Your task to perform on an android device: turn off picture-in-picture Image 0: 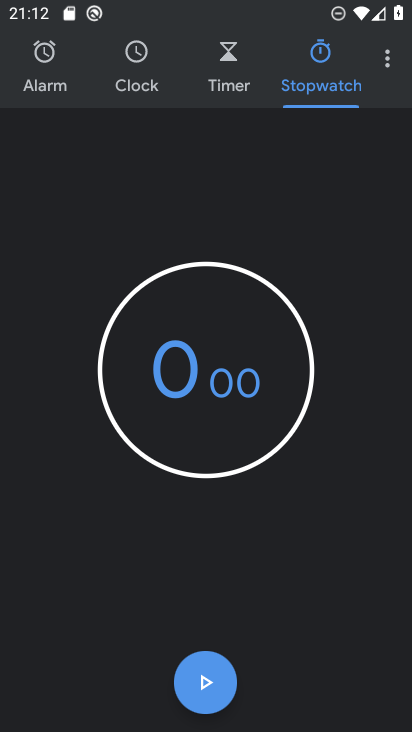
Step 0: press home button
Your task to perform on an android device: turn off picture-in-picture Image 1: 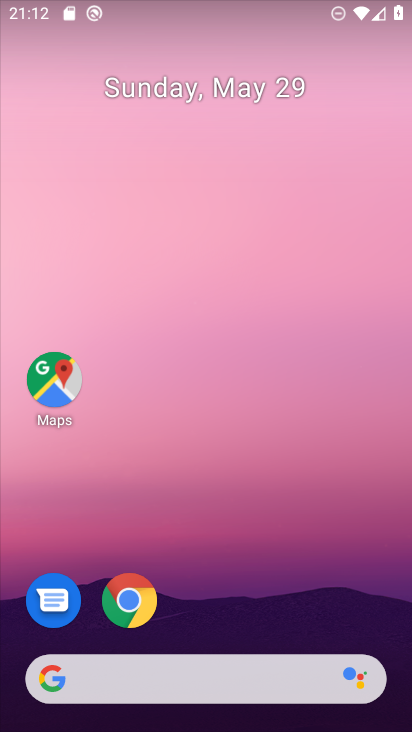
Step 1: drag from (246, 596) to (310, 131)
Your task to perform on an android device: turn off picture-in-picture Image 2: 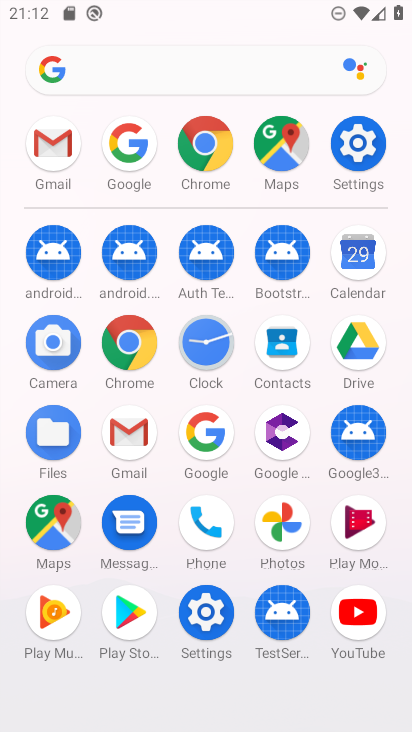
Step 2: click (350, 157)
Your task to perform on an android device: turn off picture-in-picture Image 3: 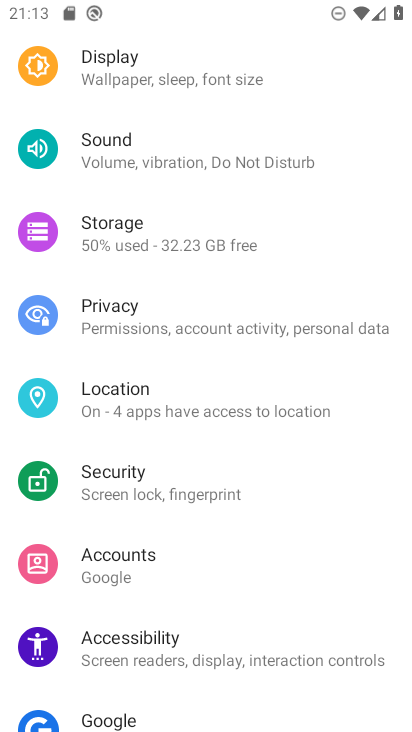
Step 3: drag from (243, 263) to (244, 523)
Your task to perform on an android device: turn off picture-in-picture Image 4: 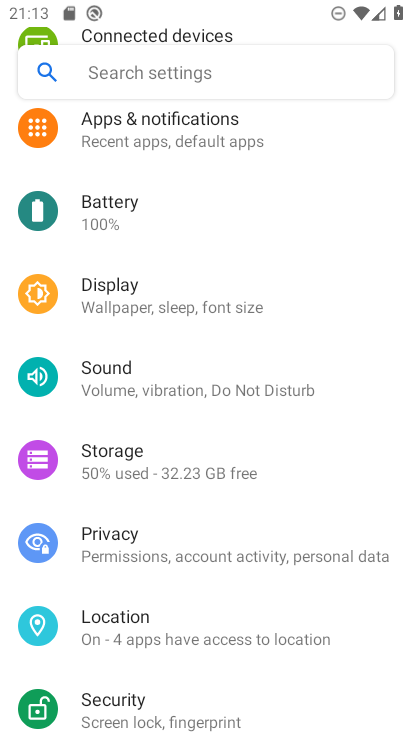
Step 4: click (204, 136)
Your task to perform on an android device: turn off picture-in-picture Image 5: 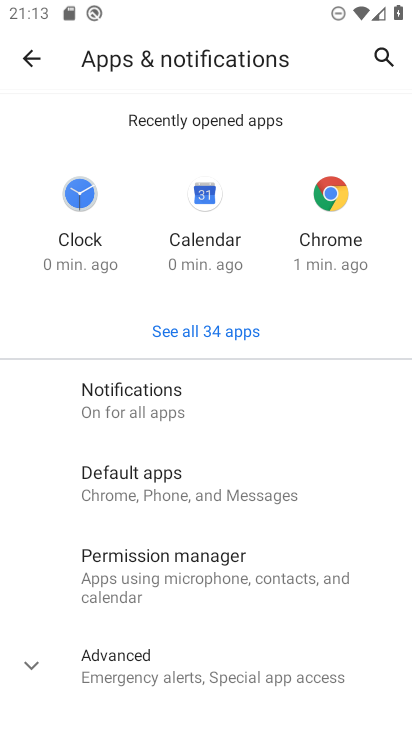
Step 5: drag from (253, 648) to (260, 306)
Your task to perform on an android device: turn off picture-in-picture Image 6: 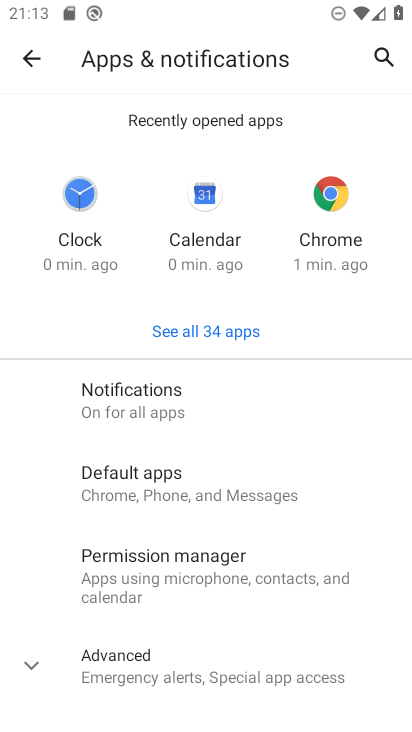
Step 6: click (158, 665)
Your task to perform on an android device: turn off picture-in-picture Image 7: 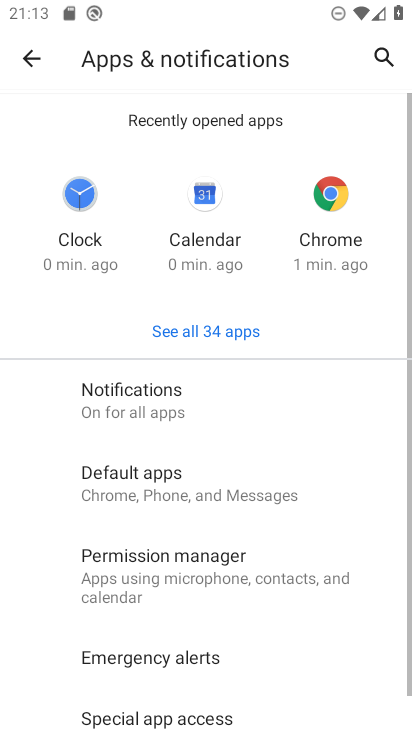
Step 7: drag from (300, 679) to (304, 259)
Your task to perform on an android device: turn off picture-in-picture Image 8: 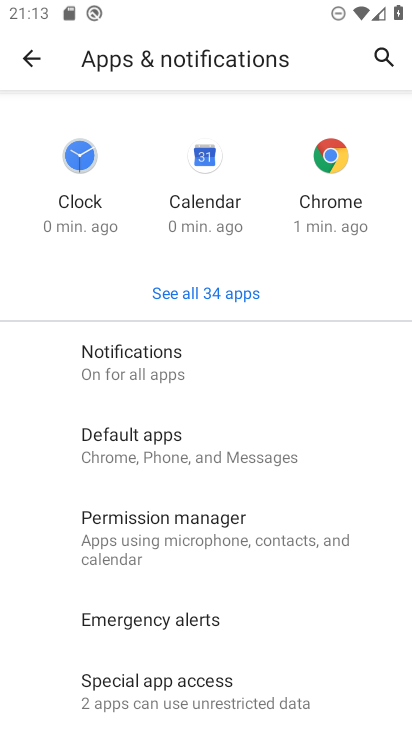
Step 8: click (182, 701)
Your task to perform on an android device: turn off picture-in-picture Image 9: 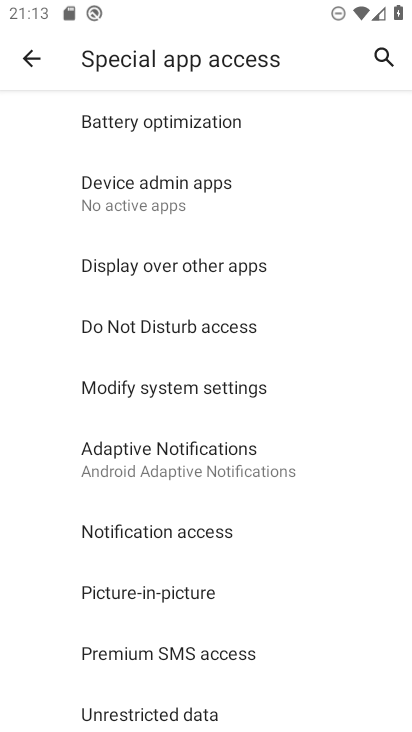
Step 9: drag from (262, 685) to (275, 290)
Your task to perform on an android device: turn off picture-in-picture Image 10: 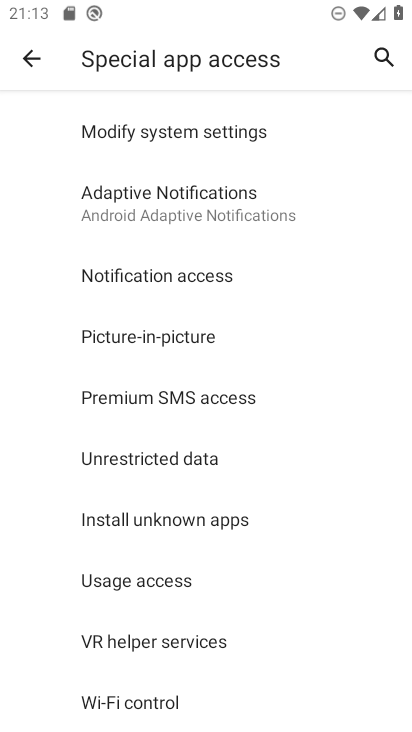
Step 10: click (213, 348)
Your task to perform on an android device: turn off picture-in-picture Image 11: 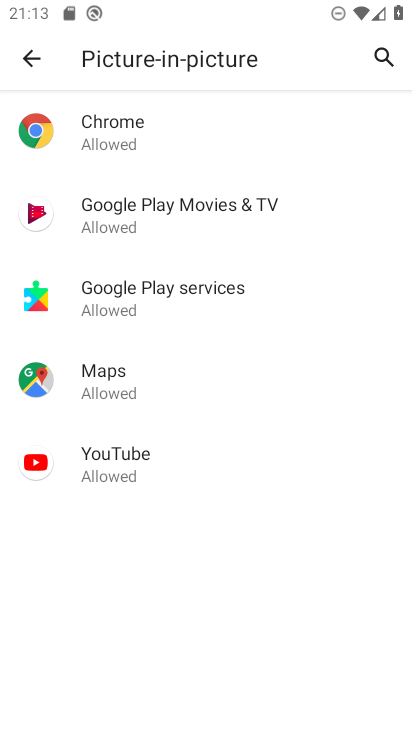
Step 11: click (190, 148)
Your task to perform on an android device: turn off picture-in-picture Image 12: 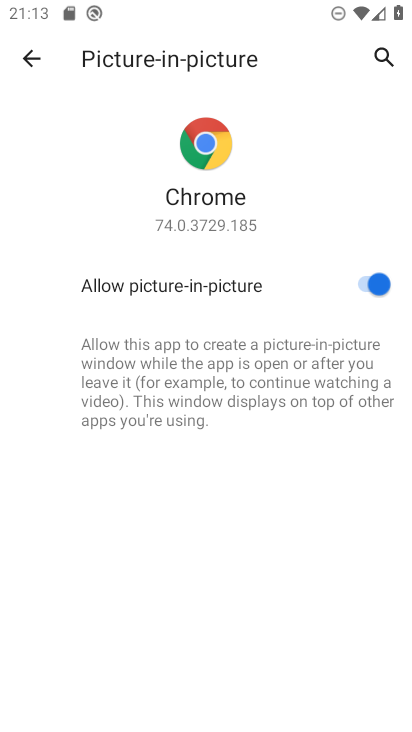
Step 12: click (374, 287)
Your task to perform on an android device: turn off picture-in-picture Image 13: 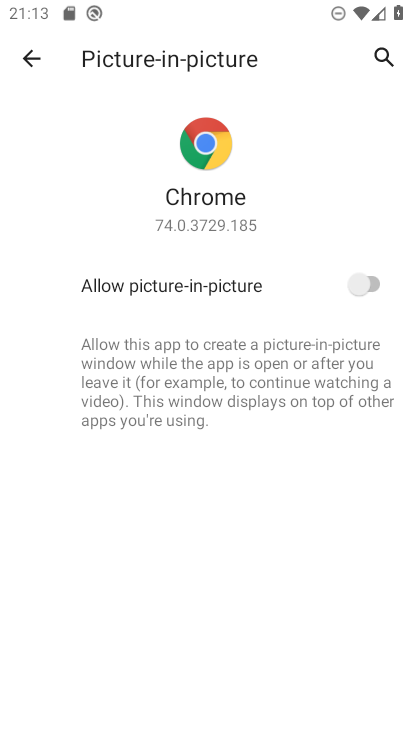
Step 13: task complete